Your task to perform on an android device: Search for vegetarian restaurants on Maps Image 0: 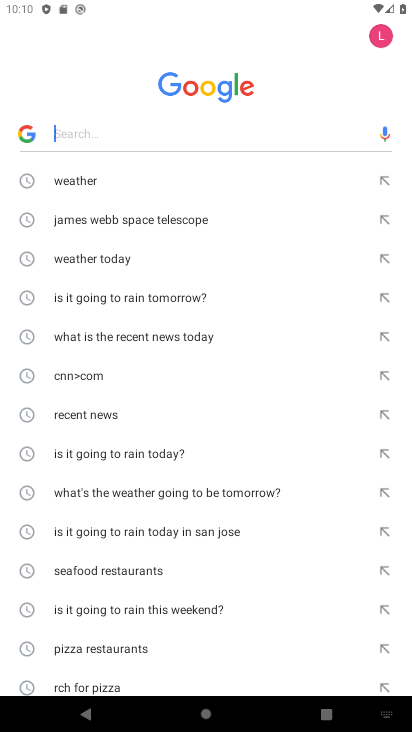
Step 0: press home button
Your task to perform on an android device: Search for vegetarian restaurants on Maps Image 1: 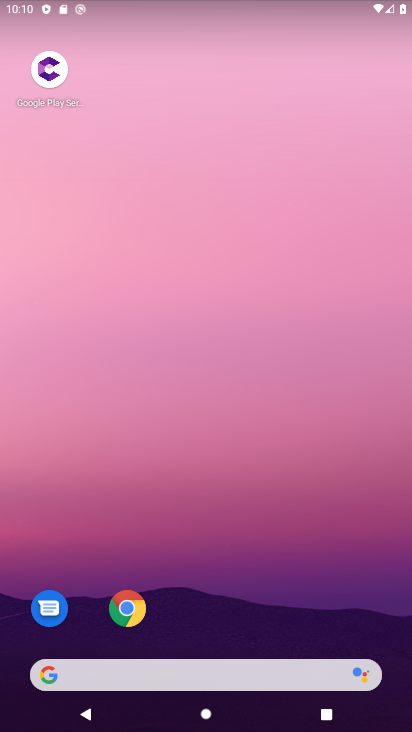
Step 1: drag from (277, 555) to (298, 60)
Your task to perform on an android device: Search for vegetarian restaurants on Maps Image 2: 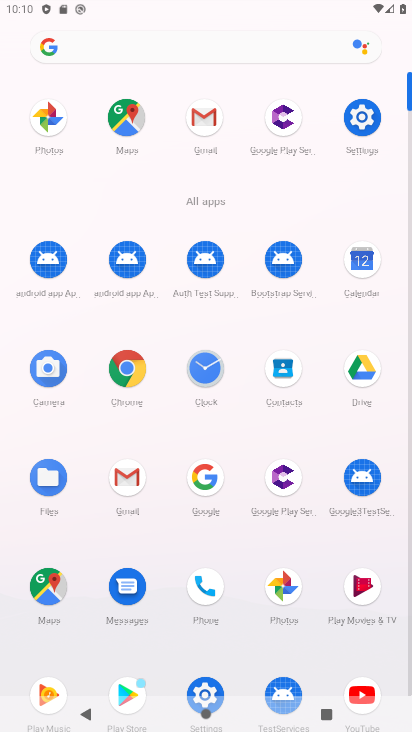
Step 2: click (45, 591)
Your task to perform on an android device: Search for vegetarian restaurants on Maps Image 3: 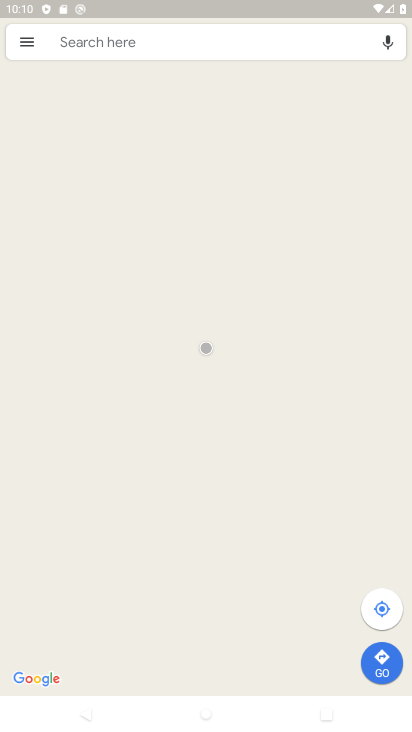
Step 3: click (180, 48)
Your task to perform on an android device: Search for vegetarian restaurants on Maps Image 4: 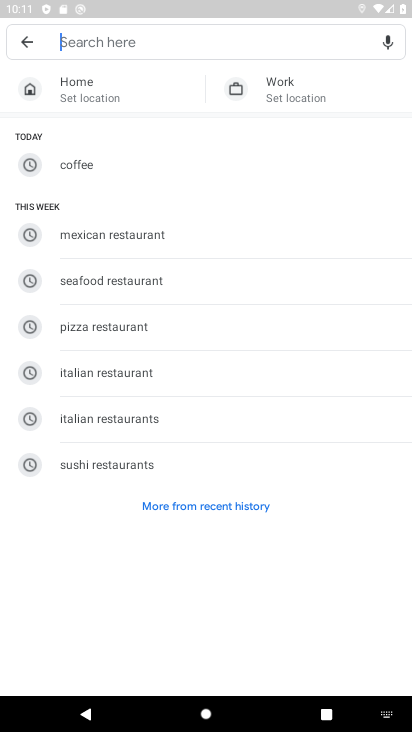
Step 4: type "vegetarian restaurants"
Your task to perform on an android device: Search for vegetarian restaurants on Maps Image 5: 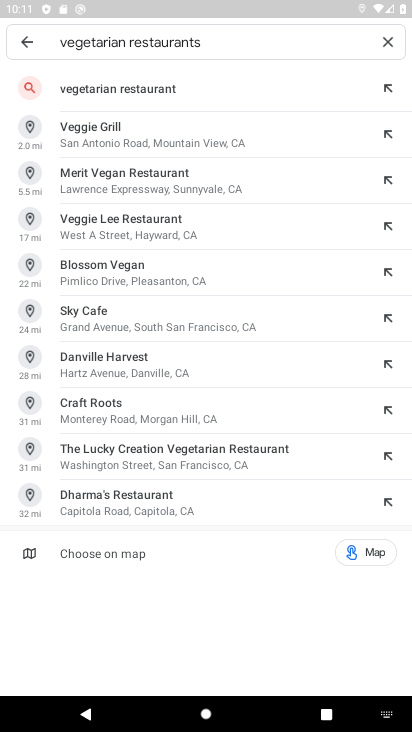
Step 5: click (269, 90)
Your task to perform on an android device: Search for vegetarian restaurants on Maps Image 6: 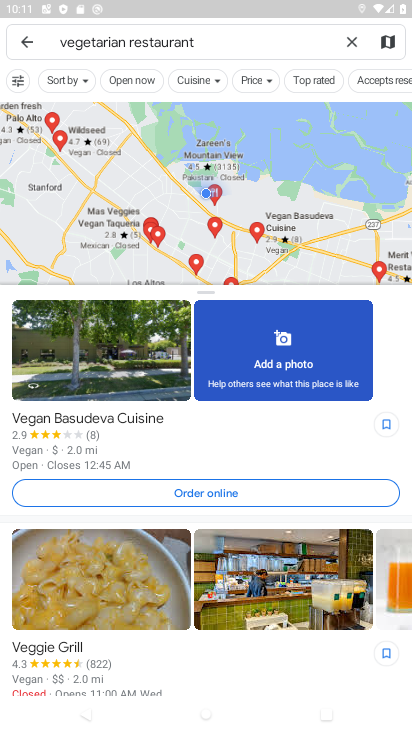
Step 6: task complete